Your task to perform on an android device: toggle show notifications on the lock screen Image 0: 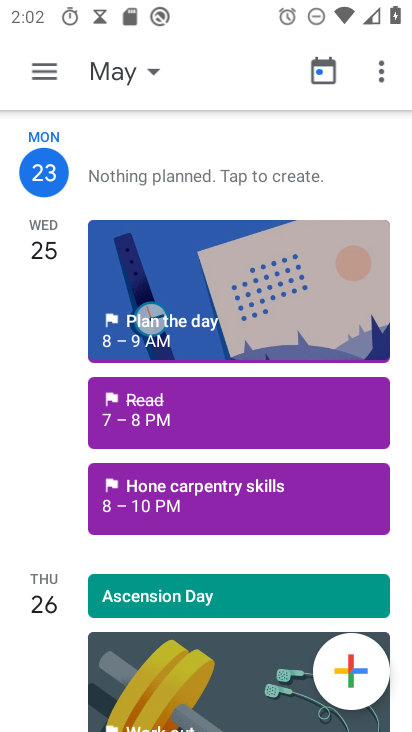
Step 0: press home button
Your task to perform on an android device: toggle show notifications on the lock screen Image 1: 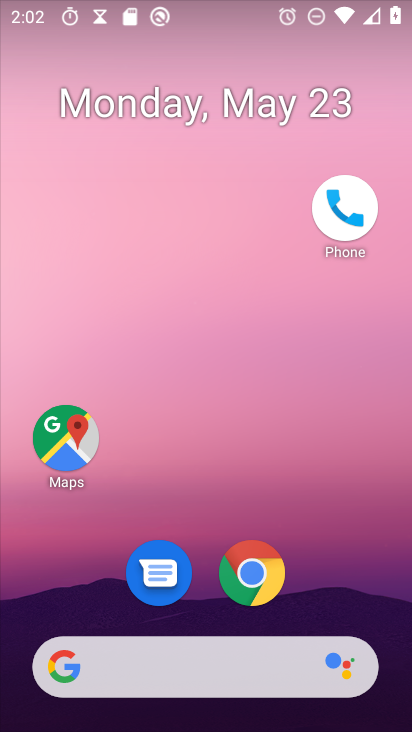
Step 1: drag from (148, 657) to (247, 102)
Your task to perform on an android device: toggle show notifications on the lock screen Image 2: 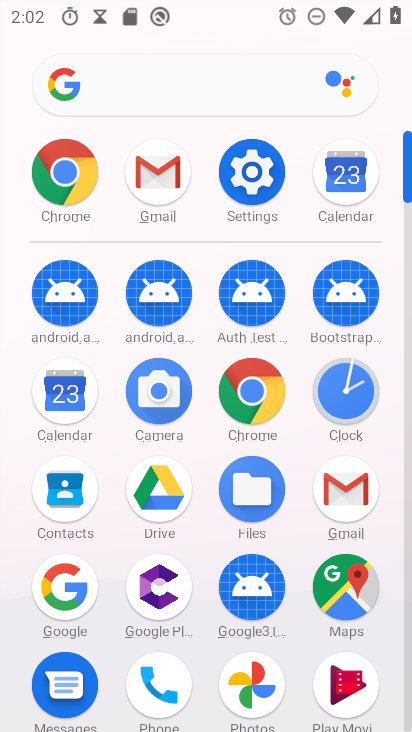
Step 2: click (259, 192)
Your task to perform on an android device: toggle show notifications on the lock screen Image 3: 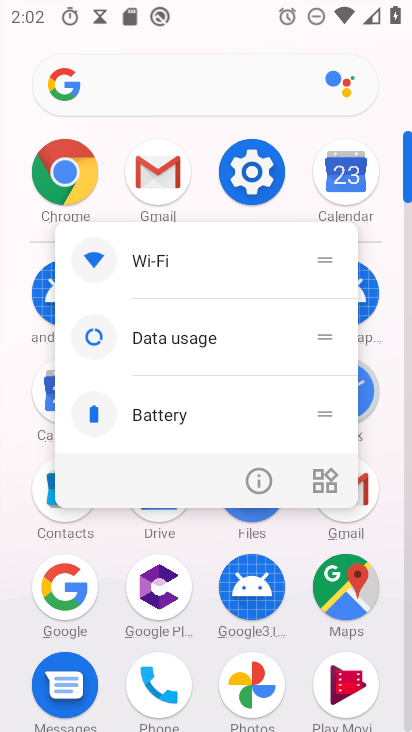
Step 3: click (248, 176)
Your task to perform on an android device: toggle show notifications on the lock screen Image 4: 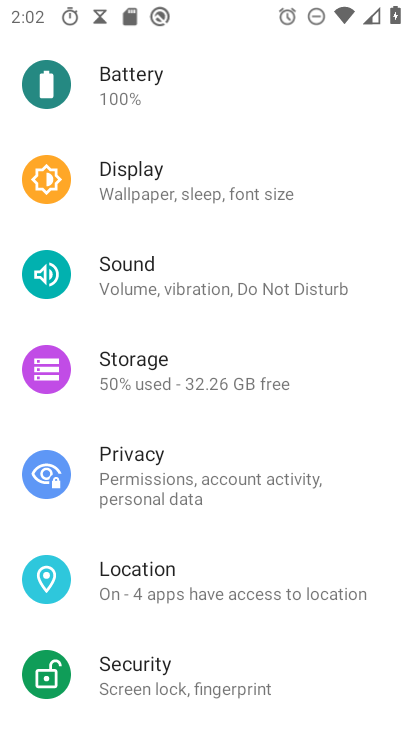
Step 4: drag from (296, 128) to (314, 584)
Your task to perform on an android device: toggle show notifications on the lock screen Image 5: 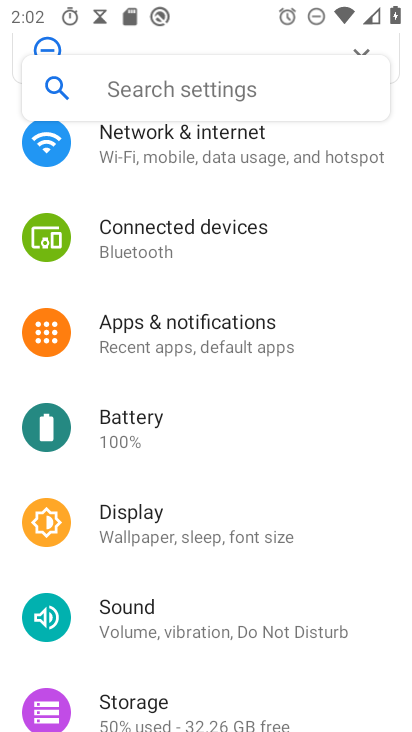
Step 5: click (184, 328)
Your task to perform on an android device: toggle show notifications on the lock screen Image 6: 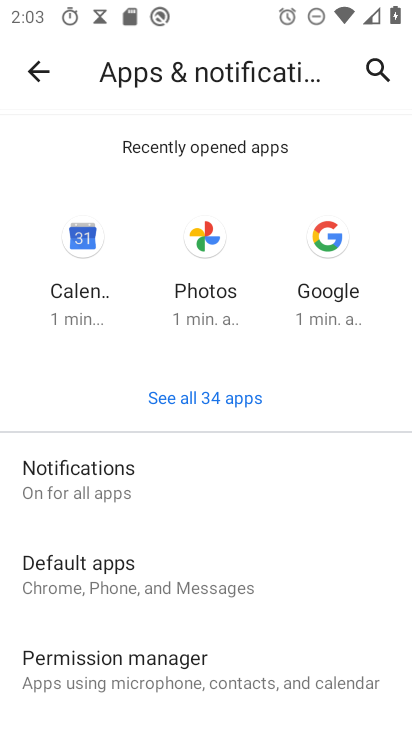
Step 6: click (59, 480)
Your task to perform on an android device: toggle show notifications on the lock screen Image 7: 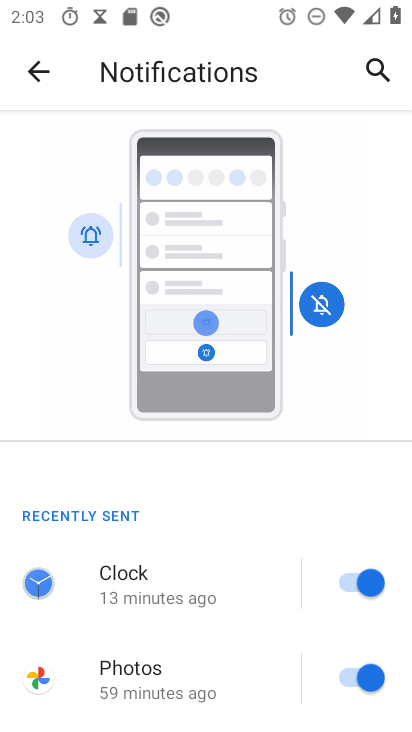
Step 7: drag from (221, 679) to (291, 203)
Your task to perform on an android device: toggle show notifications on the lock screen Image 8: 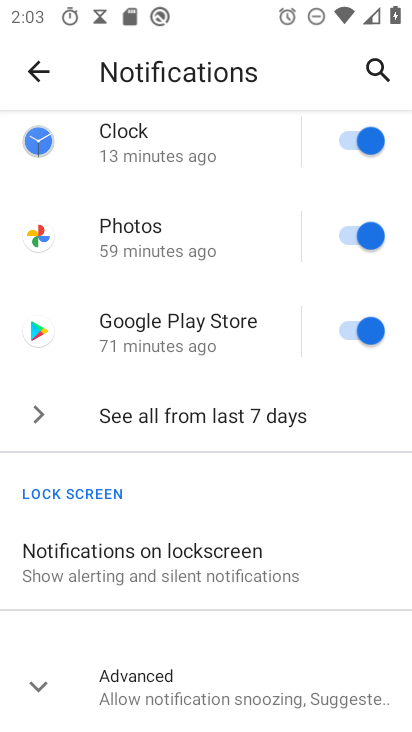
Step 8: click (219, 557)
Your task to perform on an android device: toggle show notifications on the lock screen Image 9: 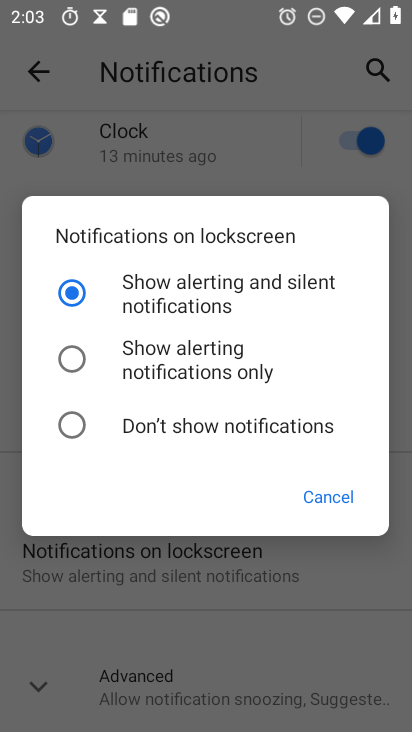
Step 9: click (71, 425)
Your task to perform on an android device: toggle show notifications on the lock screen Image 10: 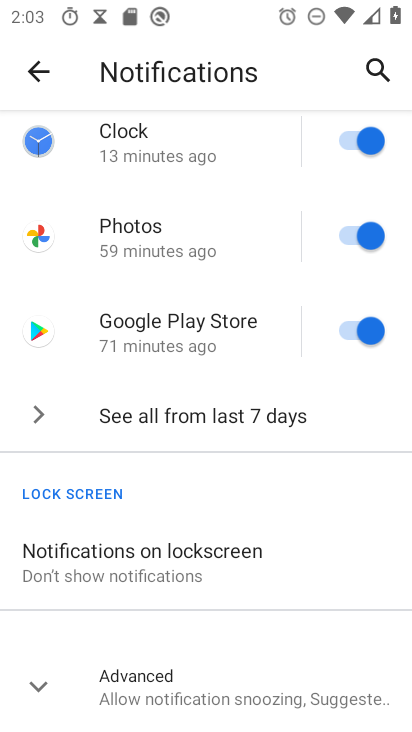
Step 10: task complete